Your task to perform on an android device: toggle improve location accuracy Image 0: 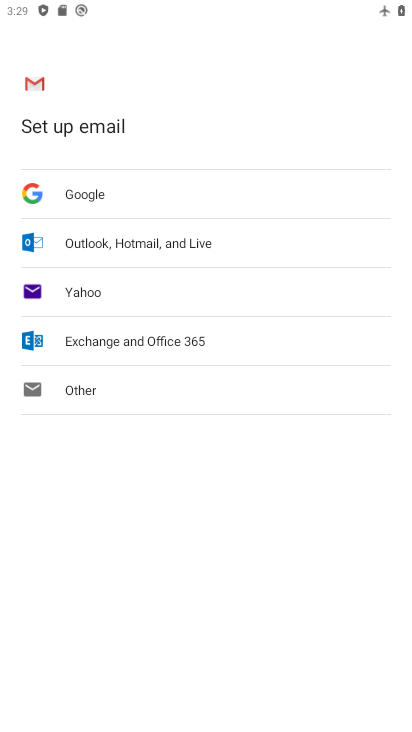
Step 0: press home button
Your task to perform on an android device: toggle improve location accuracy Image 1: 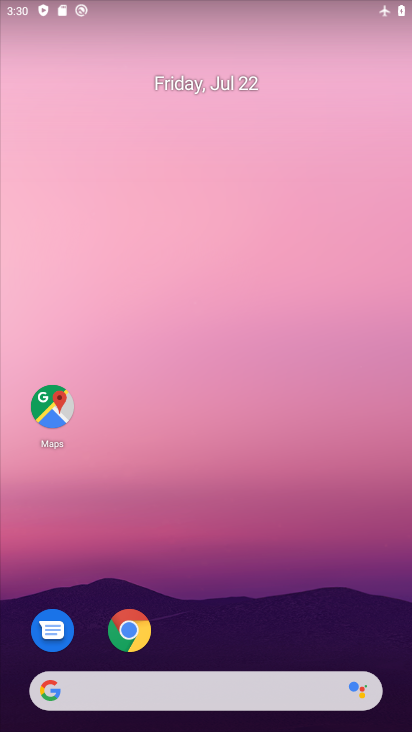
Step 1: drag from (262, 466) to (283, 156)
Your task to perform on an android device: toggle improve location accuracy Image 2: 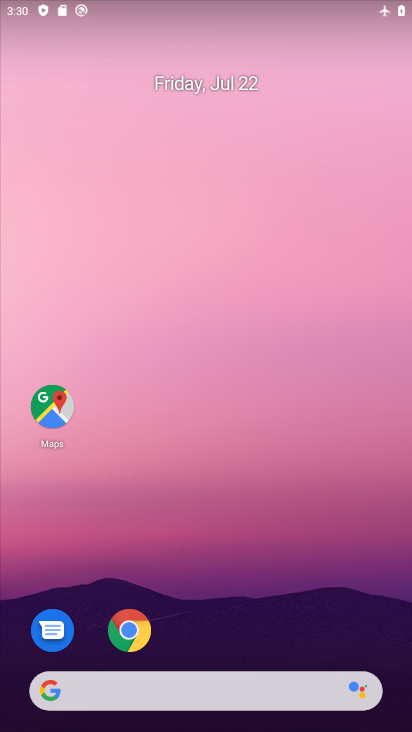
Step 2: drag from (224, 624) to (233, 0)
Your task to perform on an android device: toggle improve location accuracy Image 3: 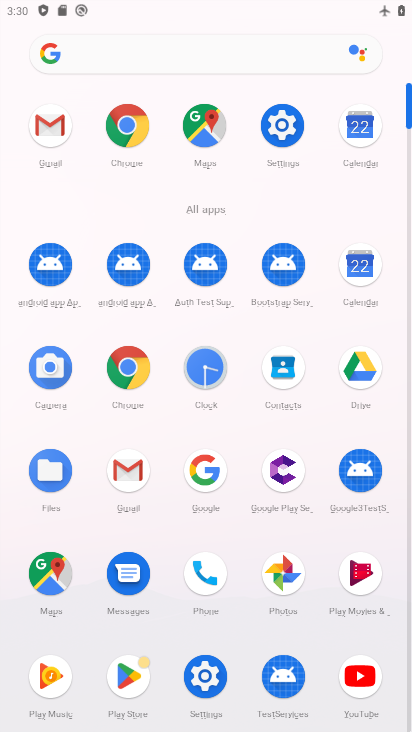
Step 3: click (201, 679)
Your task to perform on an android device: toggle improve location accuracy Image 4: 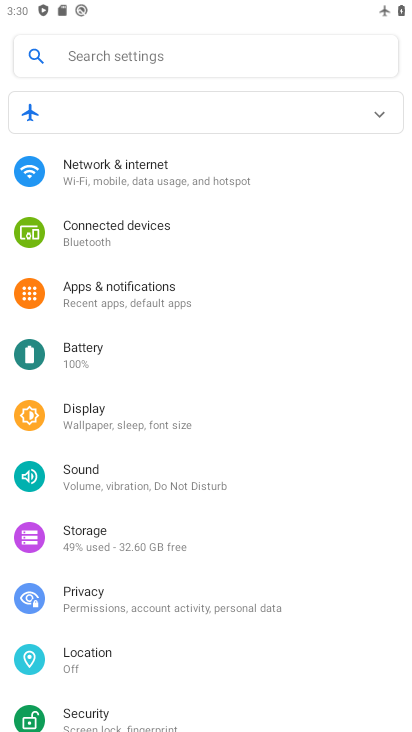
Step 4: click (108, 667)
Your task to perform on an android device: toggle improve location accuracy Image 5: 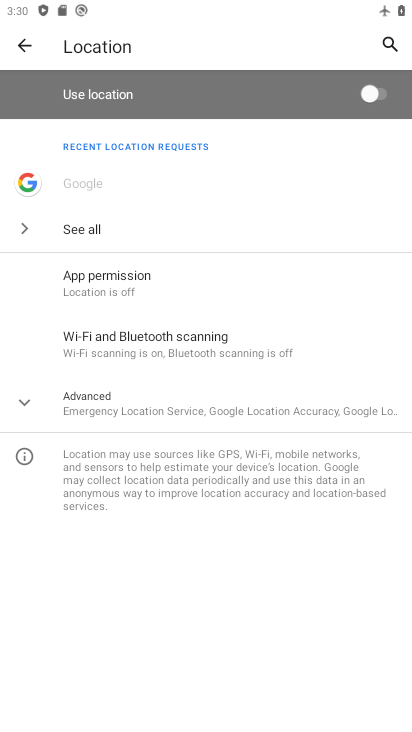
Step 5: click (206, 405)
Your task to perform on an android device: toggle improve location accuracy Image 6: 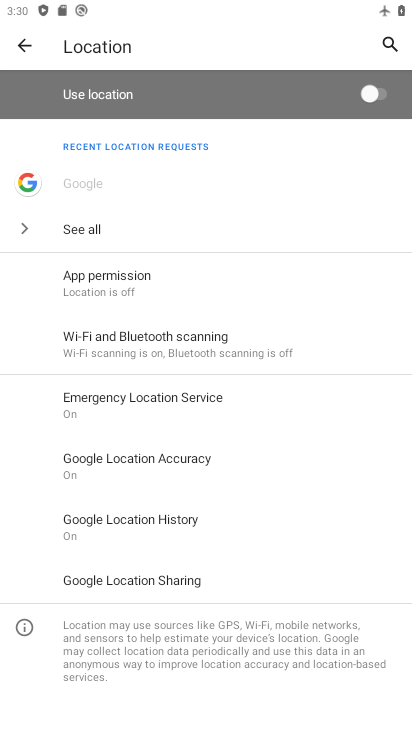
Step 6: click (164, 475)
Your task to perform on an android device: toggle improve location accuracy Image 7: 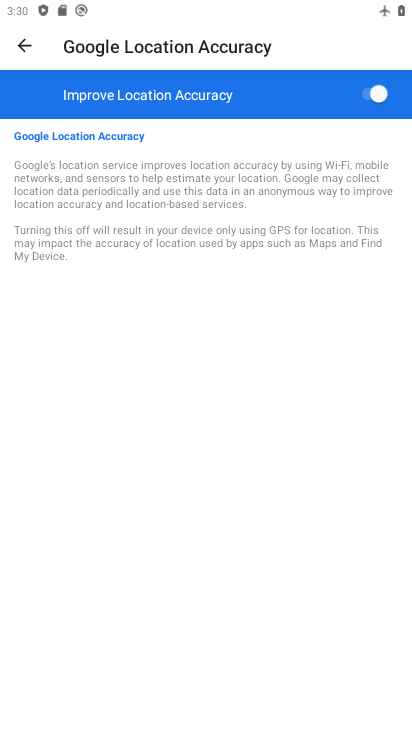
Step 7: click (348, 98)
Your task to perform on an android device: toggle improve location accuracy Image 8: 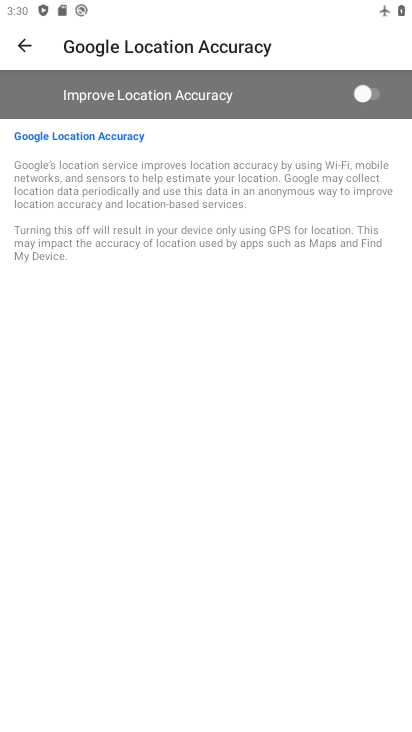
Step 8: task complete